Your task to perform on an android device: toggle location history Image 0: 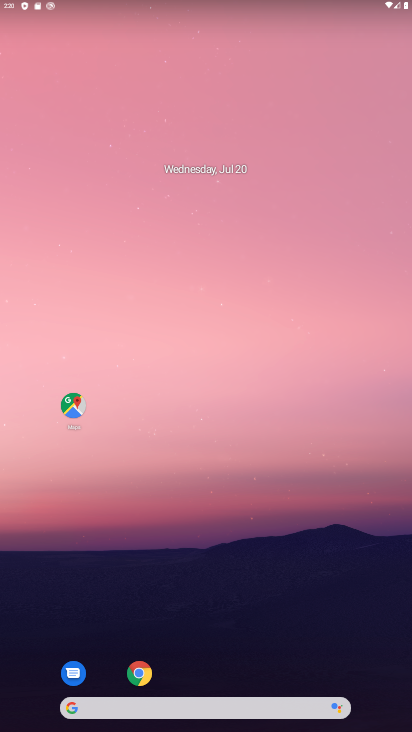
Step 0: drag from (268, 592) to (230, 106)
Your task to perform on an android device: toggle location history Image 1: 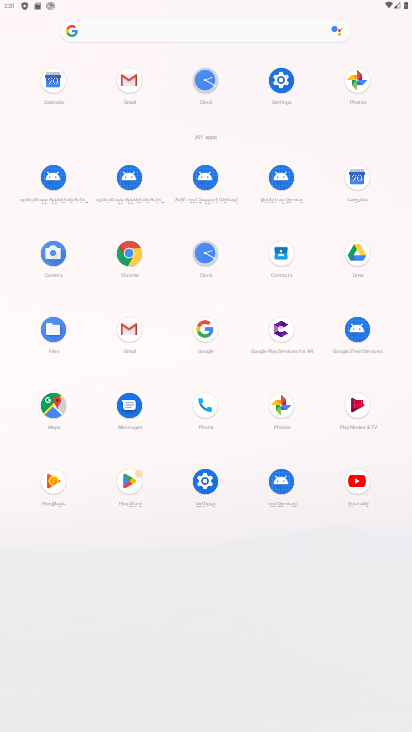
Step 1: click (201, 488)
Your task to perform on an android device: toggle location history Image 2: 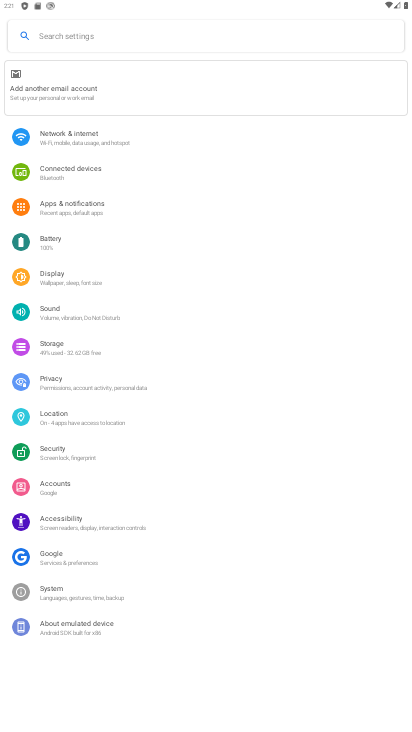
Step 2: click (83, 418)
Your task to perform on an android device: toggle location history Image 3: 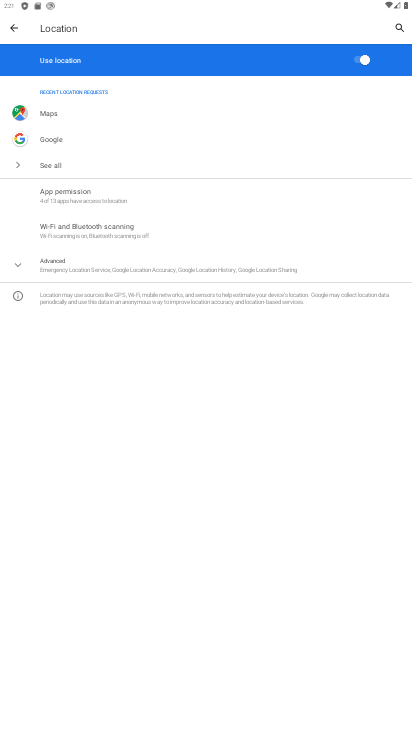
Step 3: click (106, 266)
Your task to perform on an android device: toggle location history Image 4: 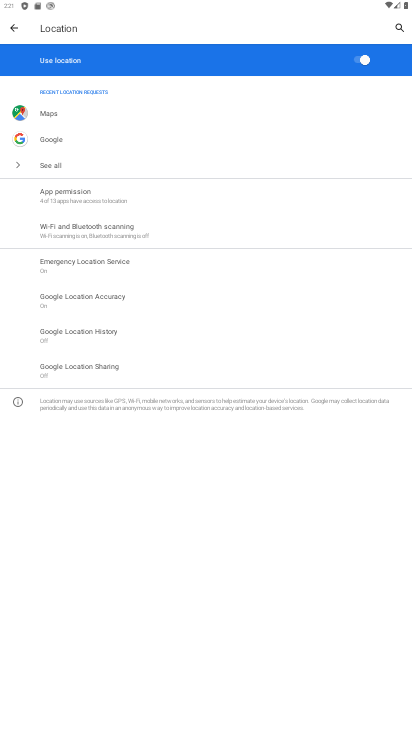
Step 4: click (122, 331)
Your task to perform on an android device: toggle location history Image 5: 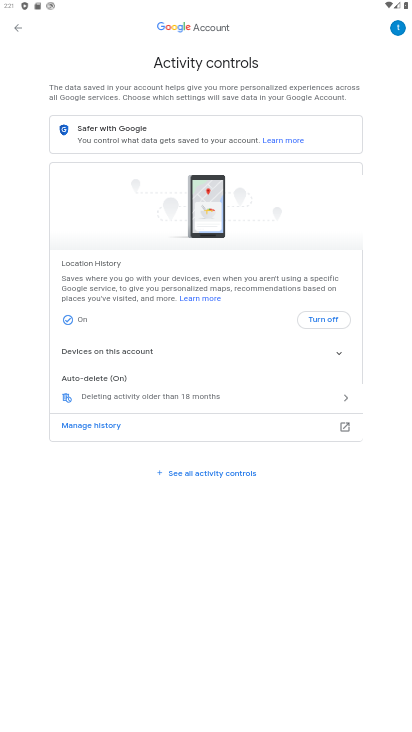
Step 5: click (332, 313)
Your task to perform on an android device: toggle location history Image 6: 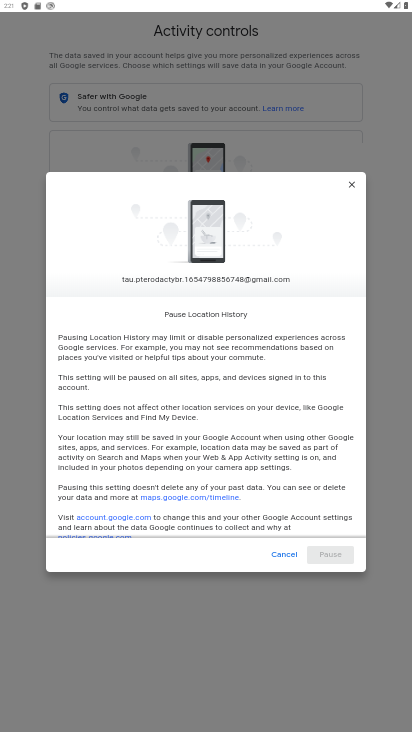
Step 6: drag from (308, 512) to (274, 135)
Your task to perform on an android device: toggle location history Image 7: 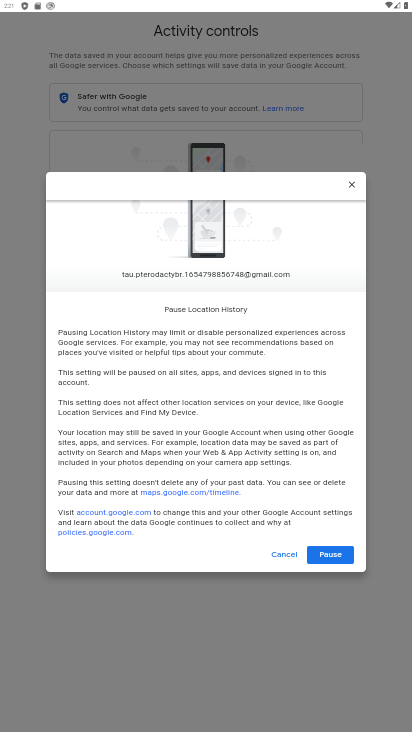
Step 7: click (334, 550)
Your task to perform on an android device: toggle location history Image 8: 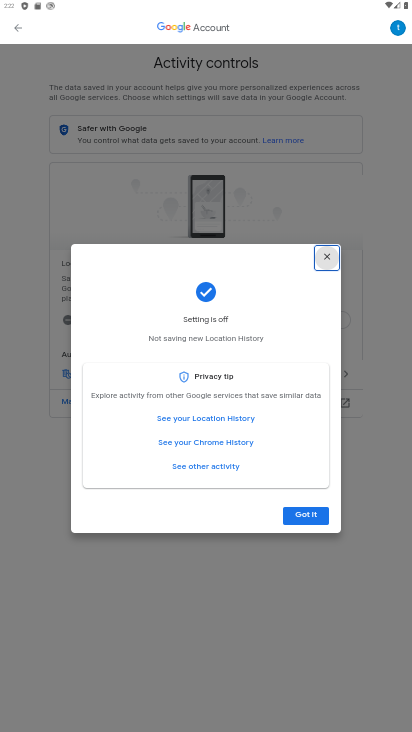
Step 8: task complete